Your task to perform on an android device: change notifications settings Image 0: 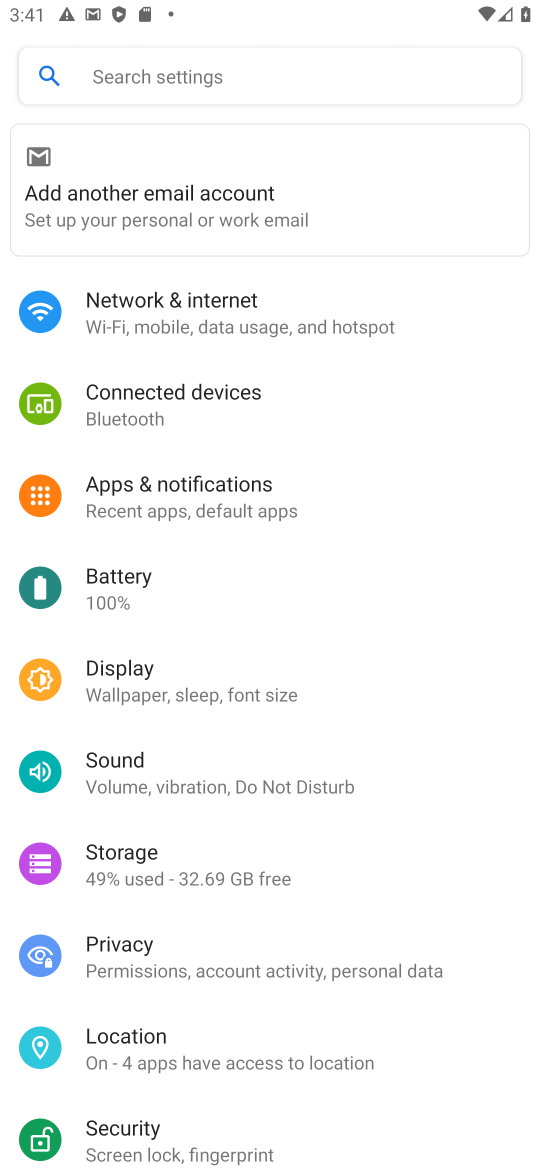
Step 0: click (213, 494)
Your task to perform on an android device: change notifications settings Image 1: 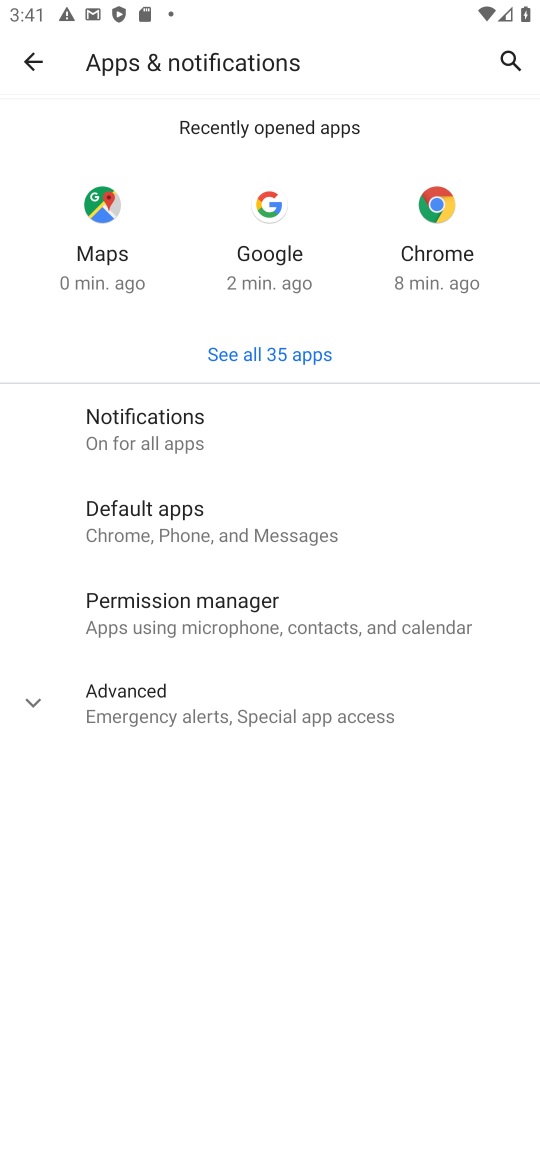
Step 1: click (184, 449)
Your task to perform on an android device: change notifications settings Image 2: 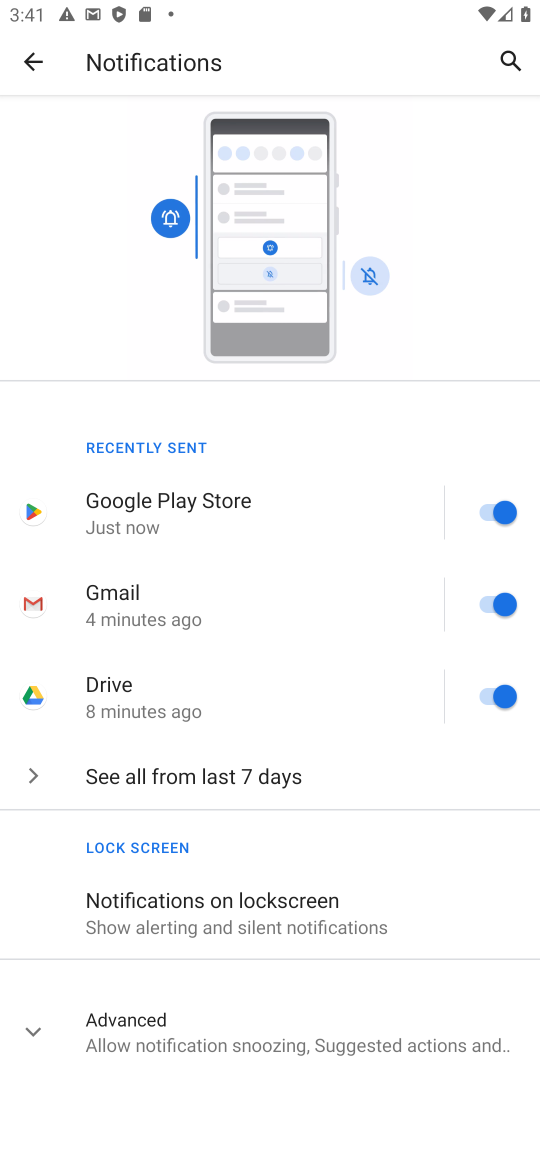
Step 2: click (211, 774)
Your task to perform on an android device: change notifications settings Image 3: 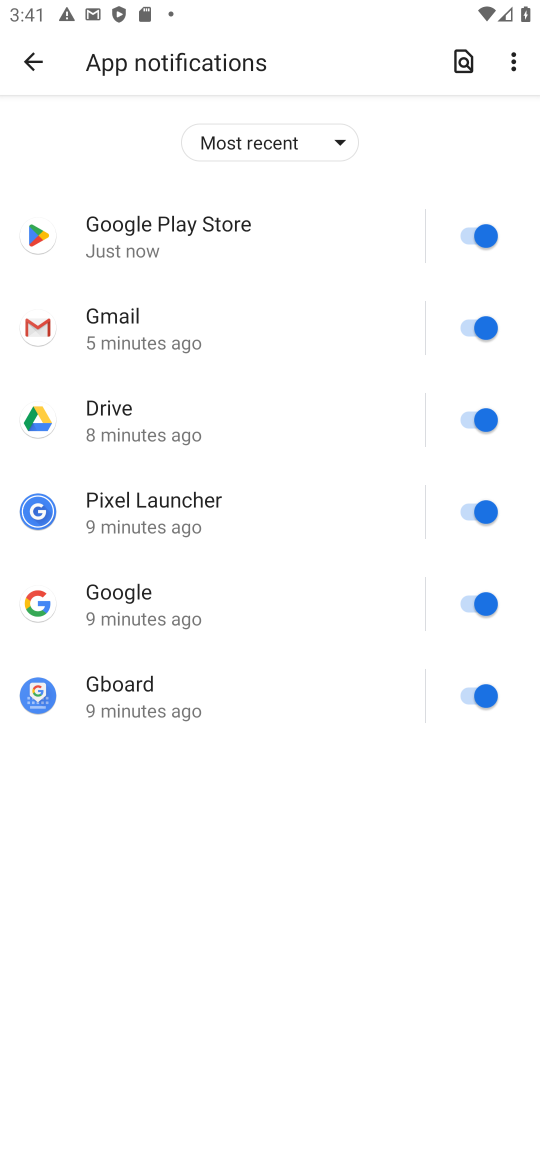
Step 3: click (463, 234)
Your task to perform on an android device: change notifications settings Image 4: 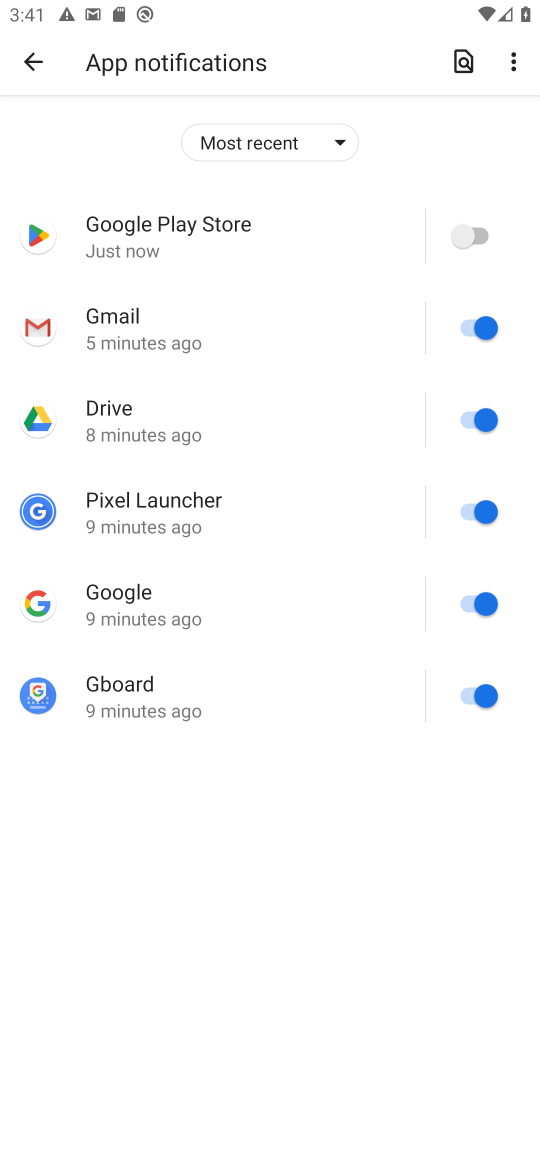
Step 4: click (480, 300)
Your task to perform on an android device: change notifications settings Image 5: 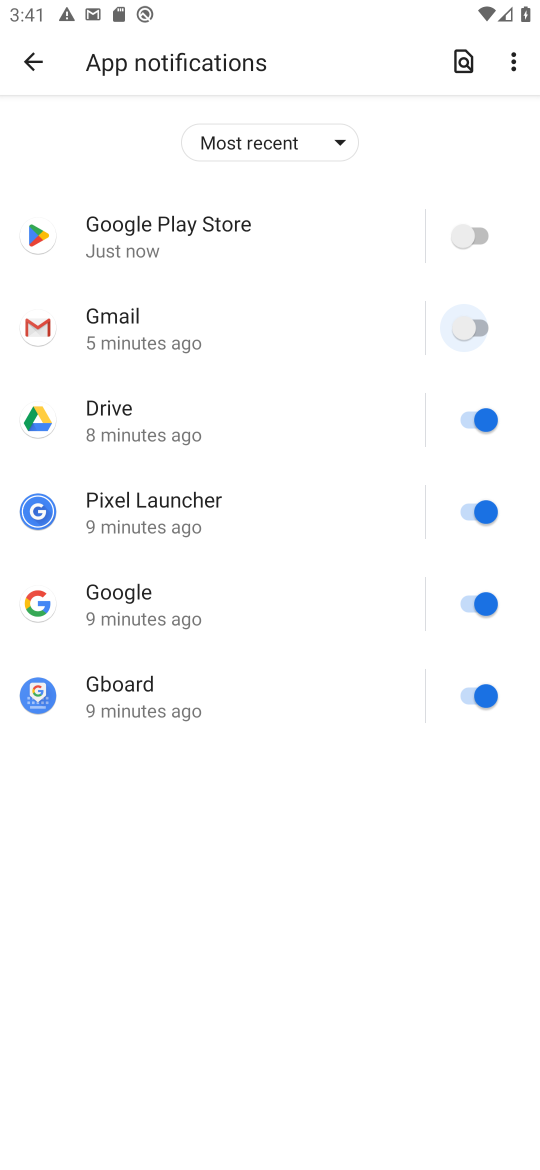
Step 5: click (467, 414)
Your task to perform on an android device: change notifications settings Image 6: 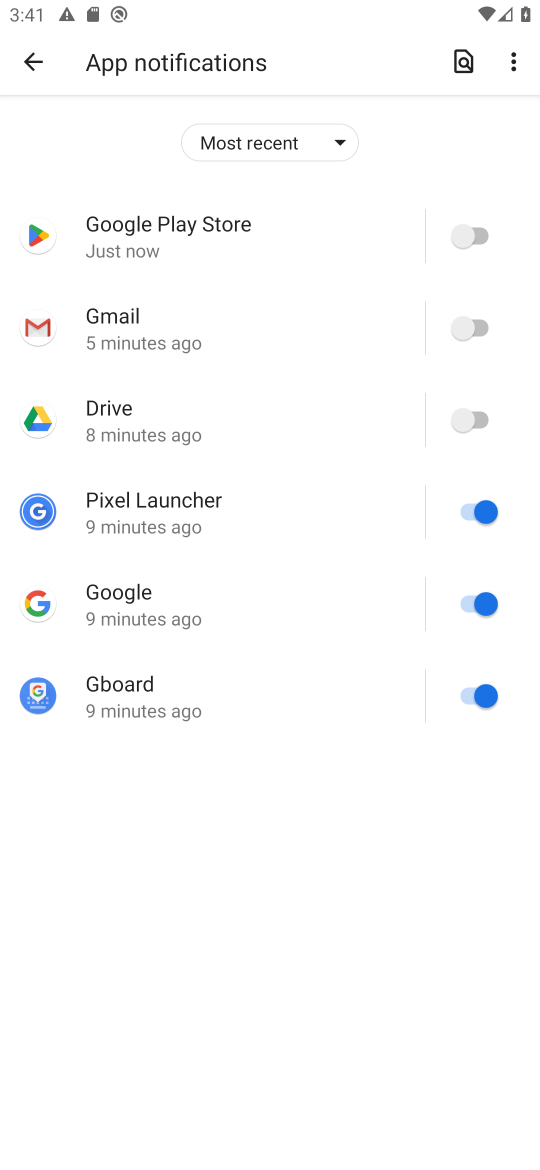
Step 6: click (466, 522)
Your task to perform on an android device: change notifications settings Image 7: 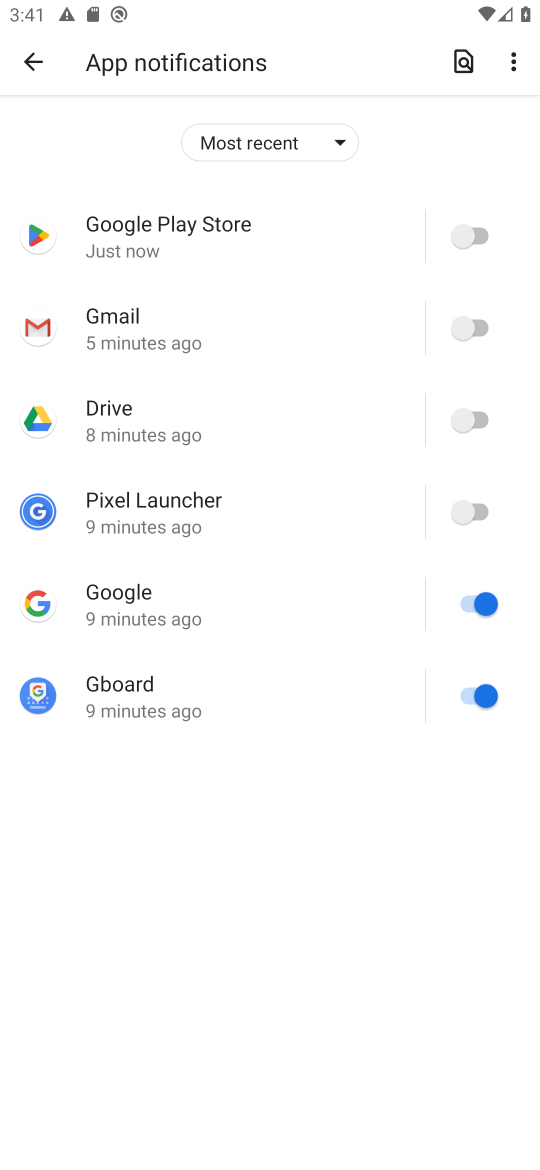
Step 7: click (489, 611)
Your task to perform on an android device: change notifications settings Image 8: 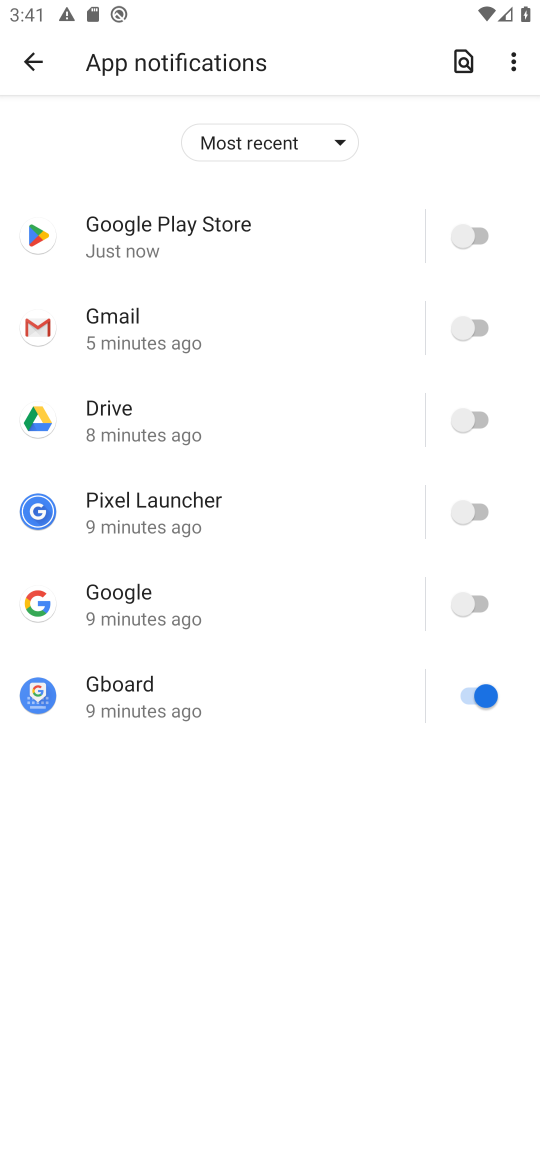
Step 8: click (484, 697)
Your task to perform on an android device: change notifications settings Image 9: 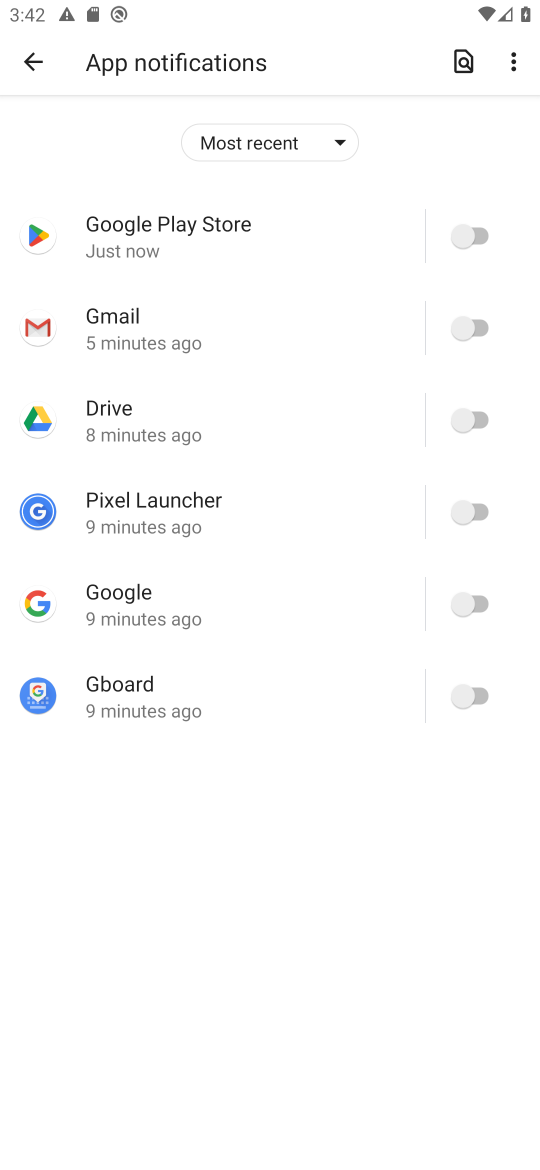
Step 9: click (29, 68)
Your task to perform on an android device: change notifications settings Image 10: 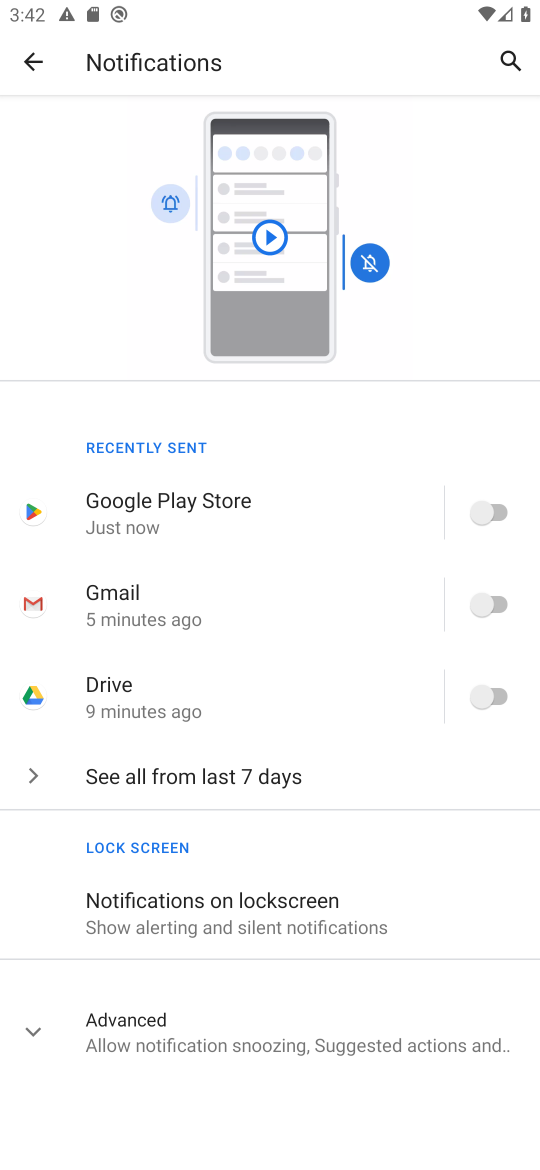
Step 10: click (159, 911)
Your task to perform on an android device: change notifications settings Image 11: 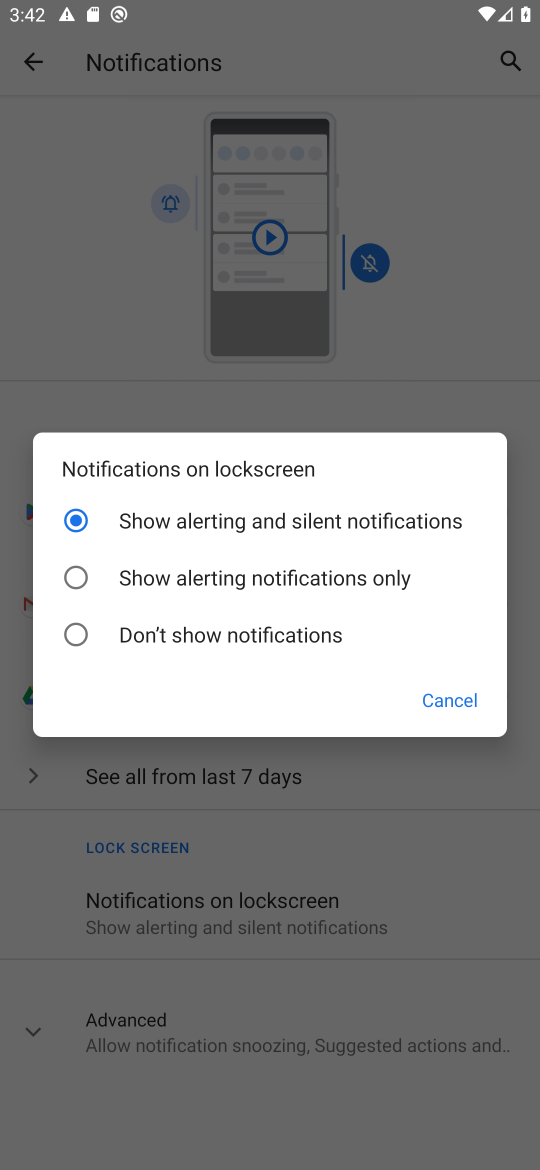
Step 11: click (151, 581)
Your task to perform on an android device: change notifications settings Image 12: 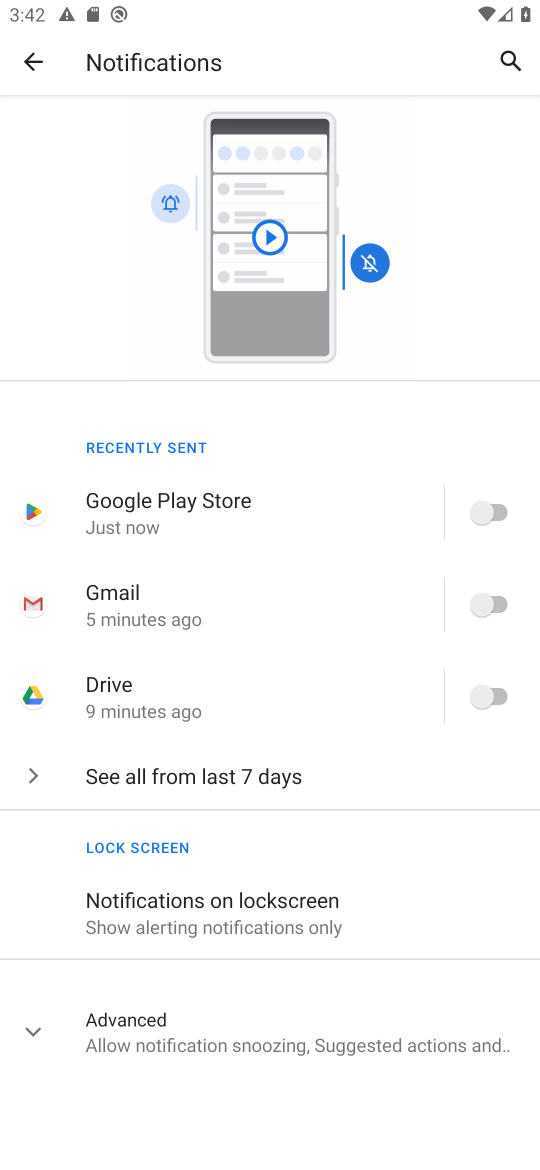
Step 12: click (197, 1034)
Your task to perform on an android device: change notifications settings Image 13: 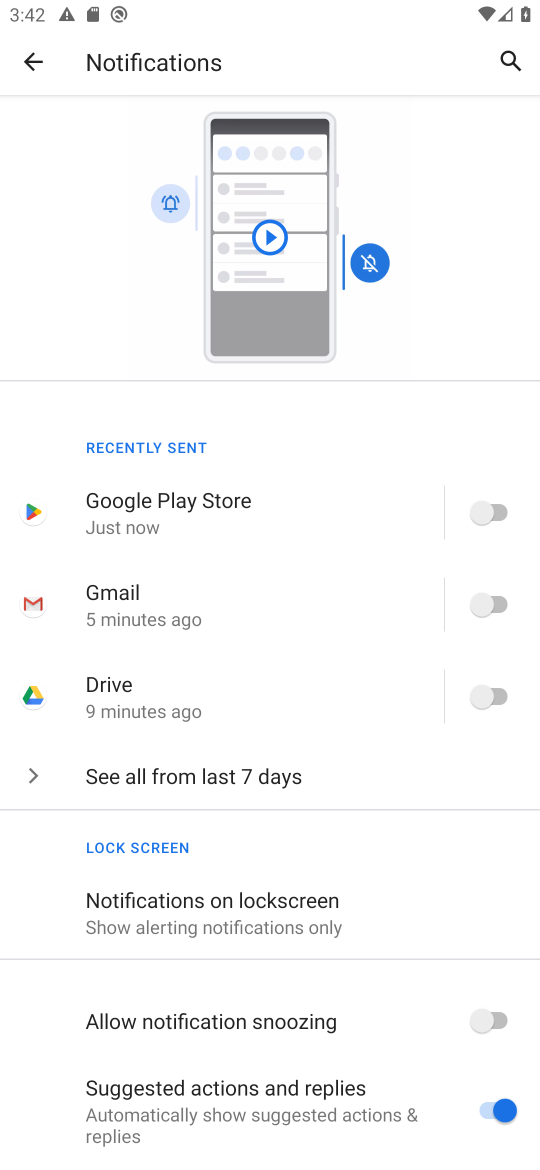
Step 13: drag from (345, 1057) to (310, 626)
Your task to perform on an android device: change notifications settings Image 14: 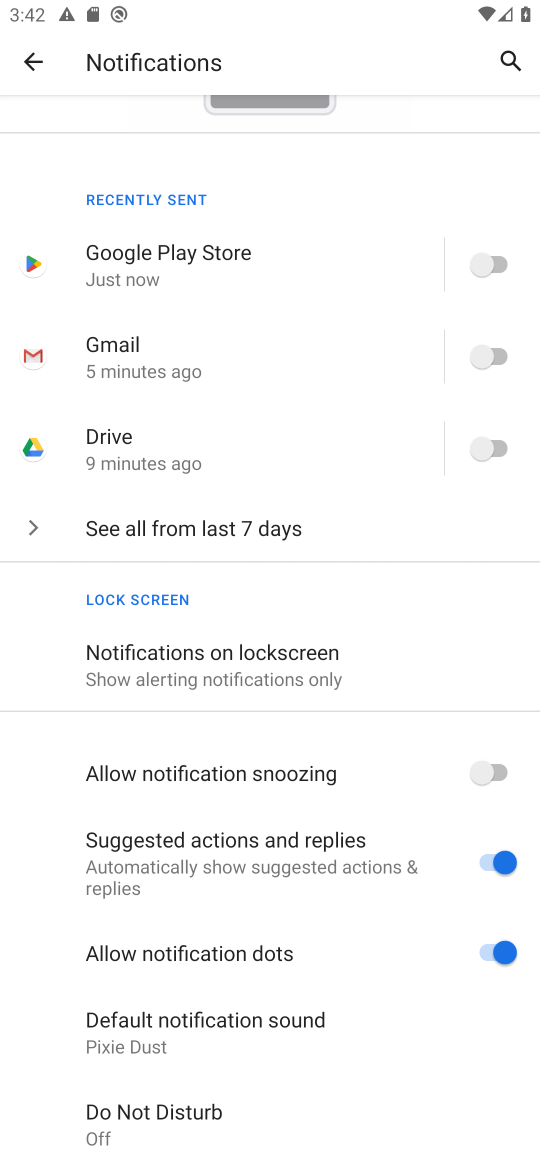
Step 14: click (481, 766)
Your task to perform on an android device: change notifications settings Image 15: 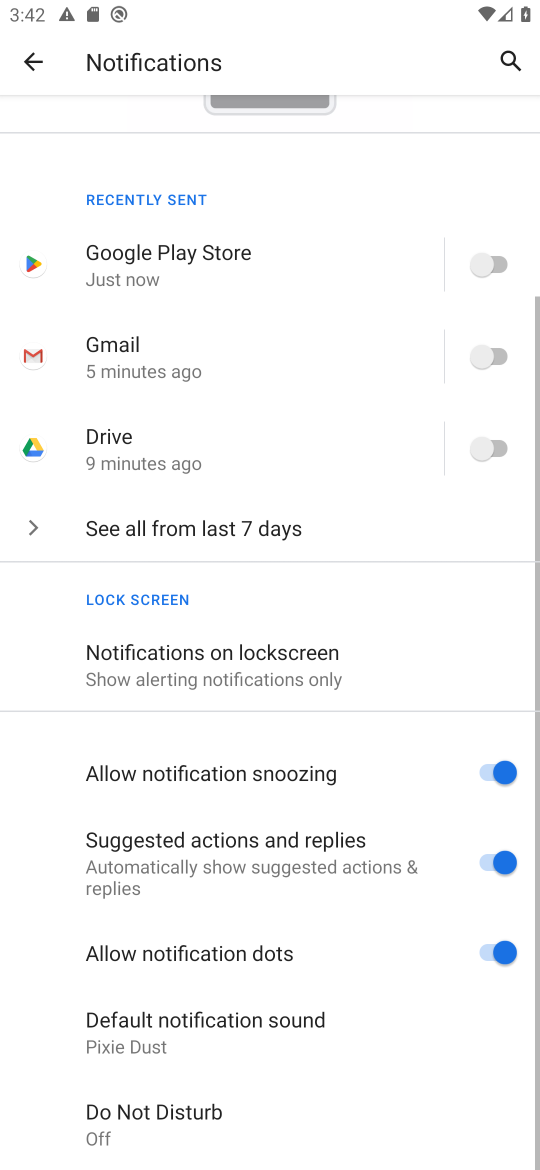
Step 15: click (499, 859)
Your task to perform on an android device: change notifications settings Image 16: 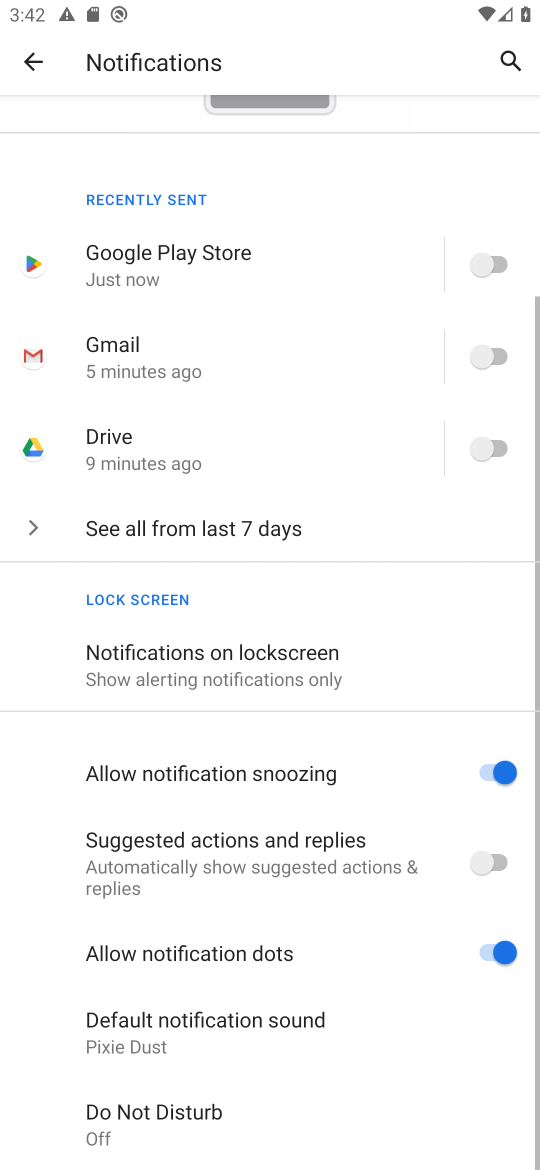
Step 16: click (483, 950)
Your task to perform on an android device: change notifications settings Image 17: 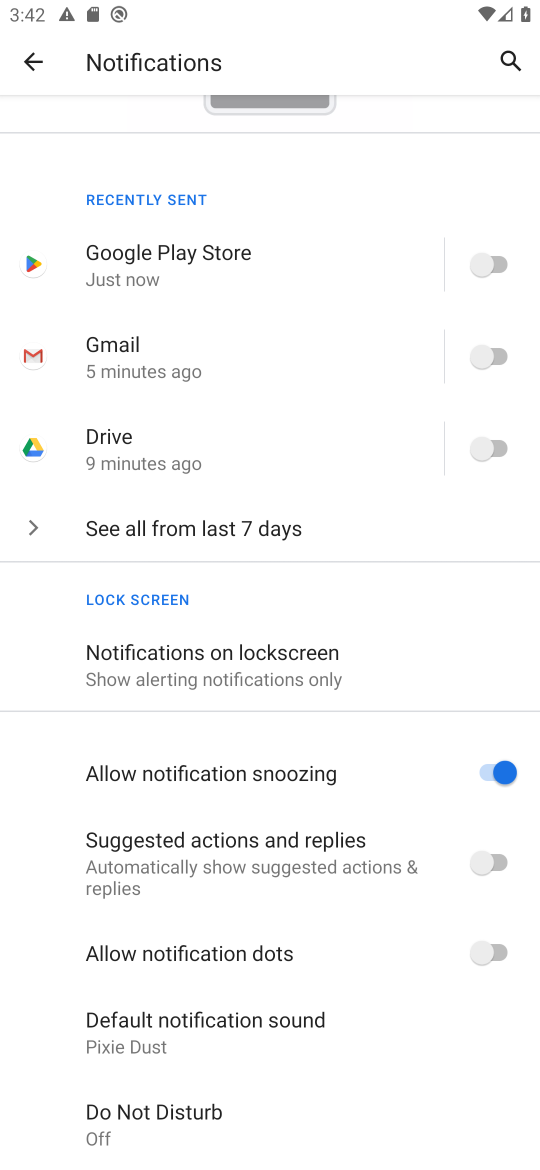
Step 17: task complete